Your task to perform on an android device: Open the web browser Image 0: 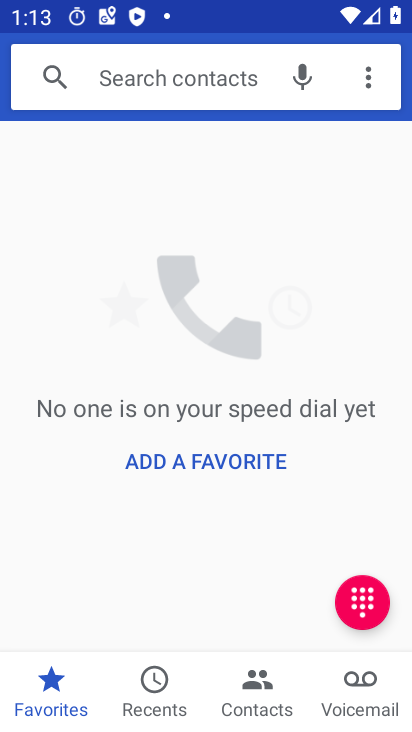
Step 0: press home button
Your task to perform on an android device: Open the web browser Image 1: 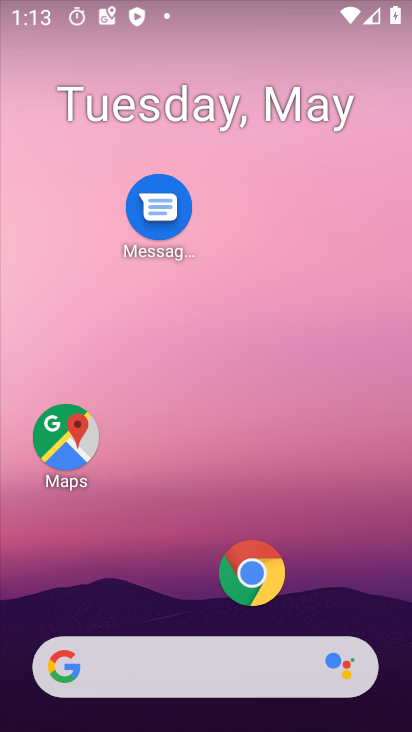
Step 1: click (243, 557)
Your task to perform on an android device: Open the web browser Image 2: 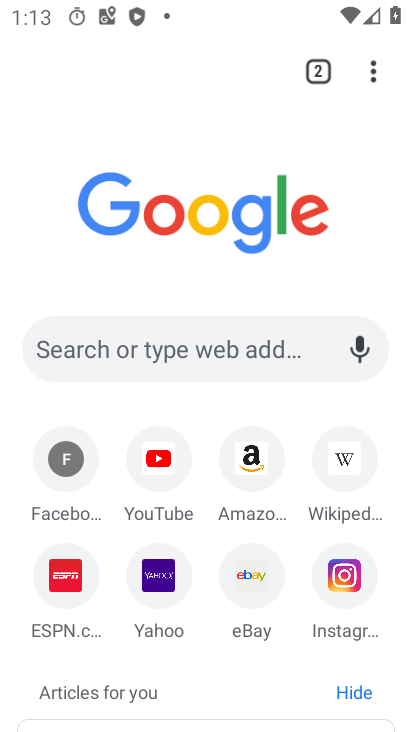
Step 2: task complete